Your task to perform on an android device: Open privacy settings Image 0: 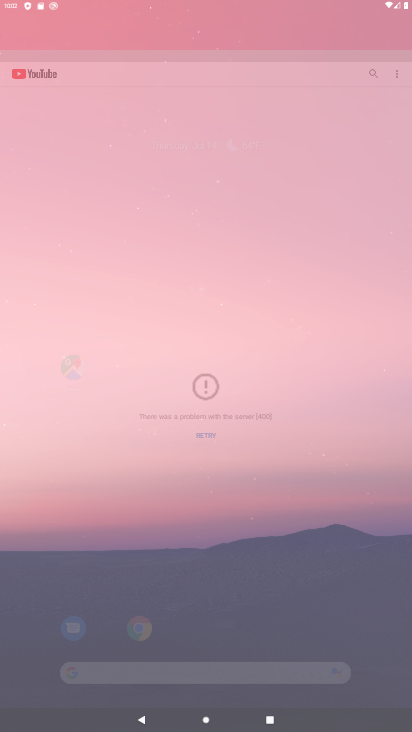
Step 0: click (197, 637)
Your task to perform on an android device: Open privacy settings Image 1: 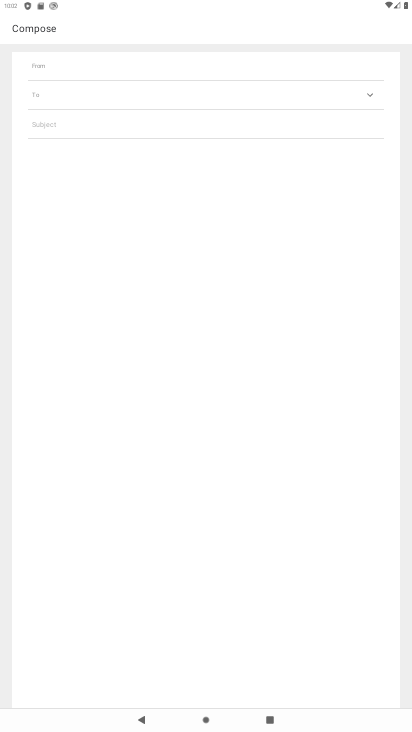
Step 1: drag from (360, 7) to (274, 447)
Your task to perform on an android device: Open privacy settings Image 2: 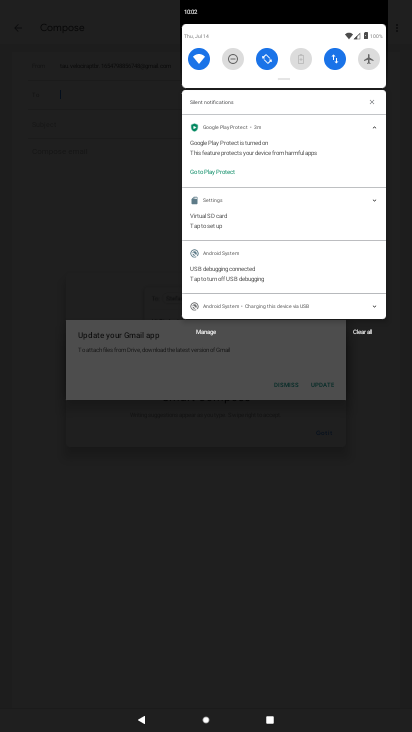
Step 2: press home button
Your task to perform on an android device: Open privacy settings Image 3: 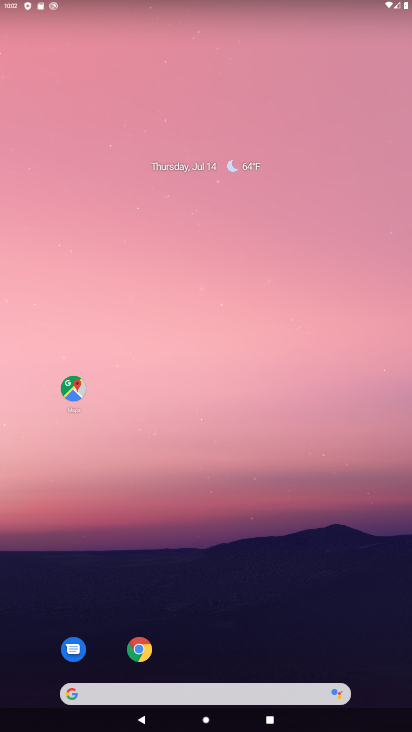
Step 3: drag from (233, 638) to (294, 120)
Your task to perform on an android device: Open privacy settings Image 4: 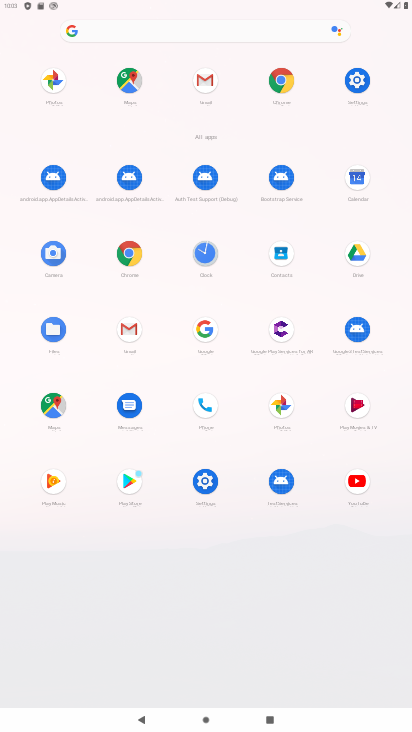
Step 4: click (205, 480)
Your task to perform on an android device: Open privacy settings Image 5: 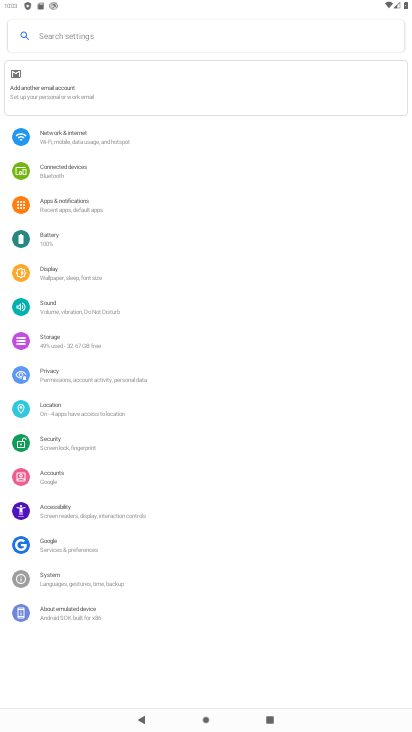
Step 5: click (50, 373)
Your task to perform on an android device: Open privacy settings Image 6: 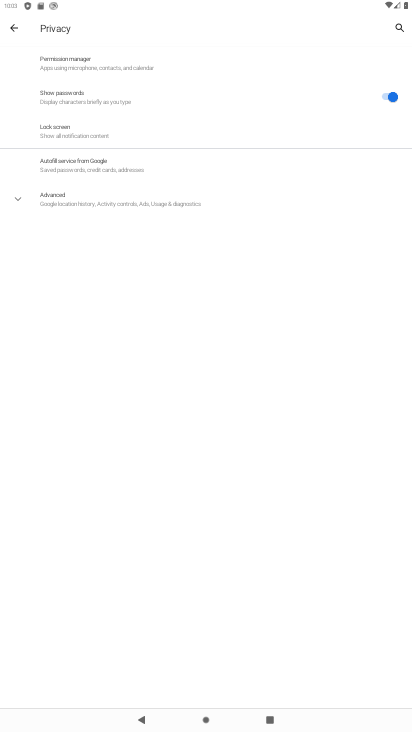
Step 6: task complete